Your task to perform on an android device: Open sound settings Image 0: 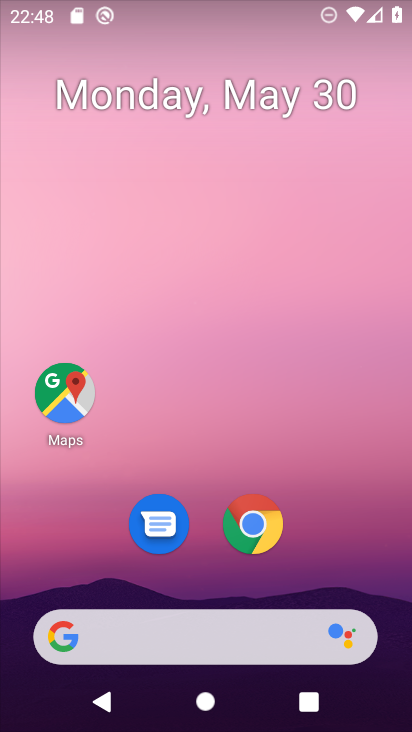
Step 0: drag from (336, 496) to (331, 63)
Your task to perform on an android device: Open sound settings Image 1: 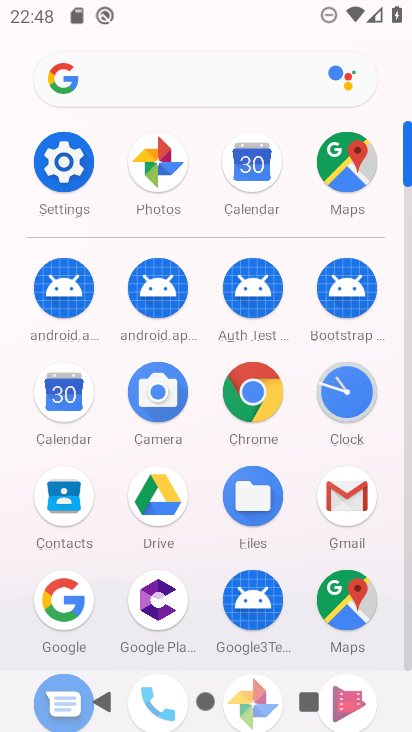
Step 1: click (45, 154)
Your task to perform on an android device: Open sound settings Image 2: 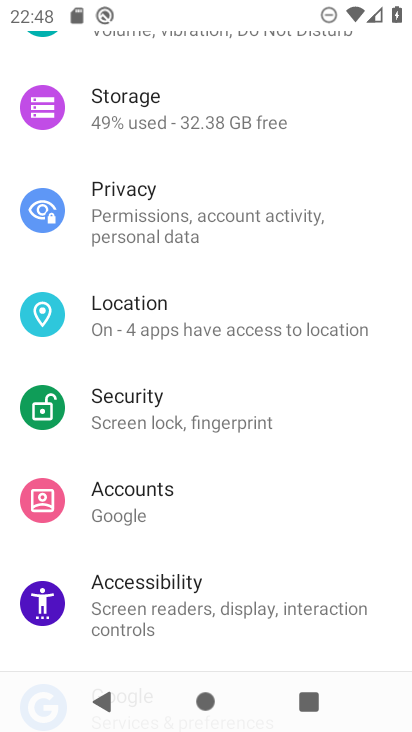
Step 2: drag from (262, 260) to (253, 614)
Your task to perform on an android device: Open sound settings Image 3: 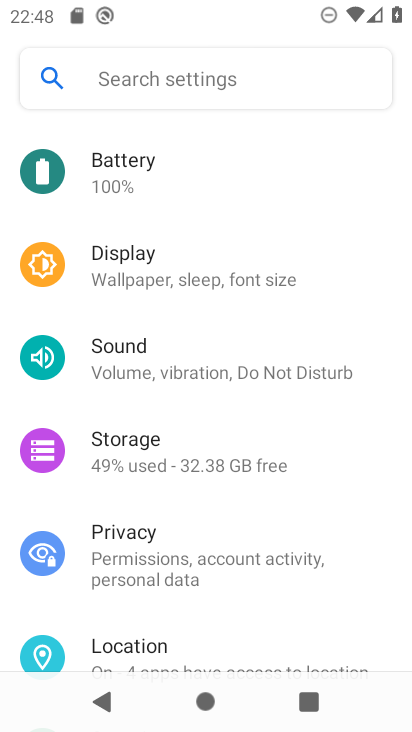
Step 3: click (224, 343)
Your task to perform on an android device: Open sound settings Image 4: 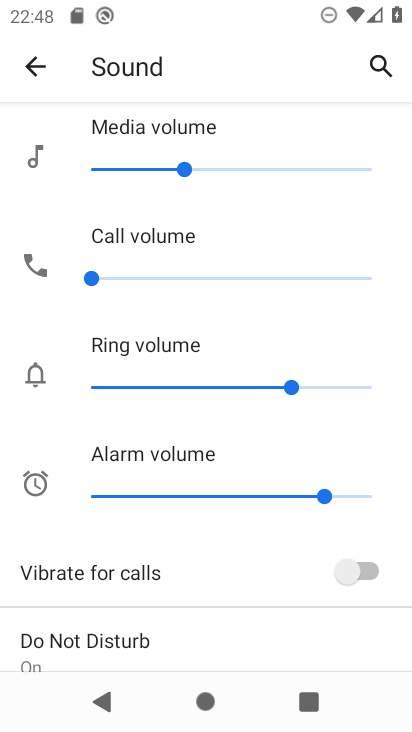
Step 4: task complete